Your task to perform on an android device: Open privacy settings Image 0: 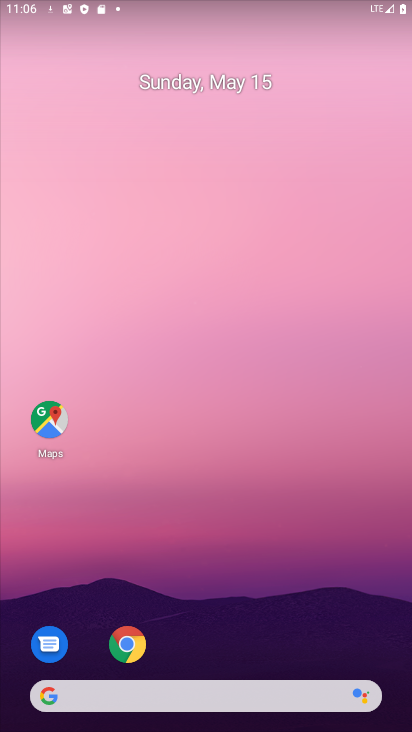
Step 0: drag from (266, 693) to (351, 248)
Your task to perform on an android device: Open privacy settings Image 1: 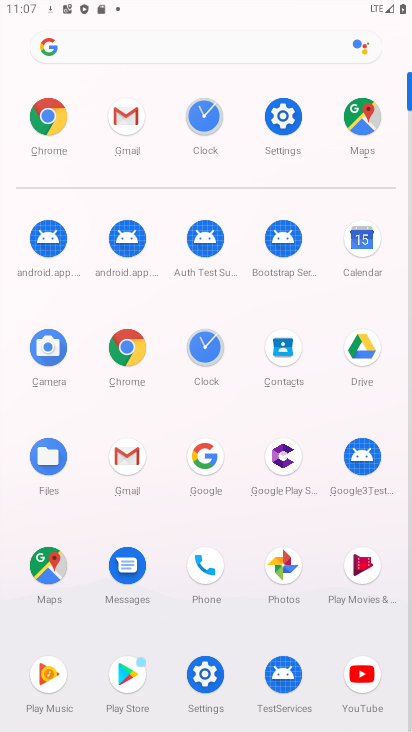
Step 1: click (200, 676)
Your task to perform on an android device: Open privacy settings Image 2: 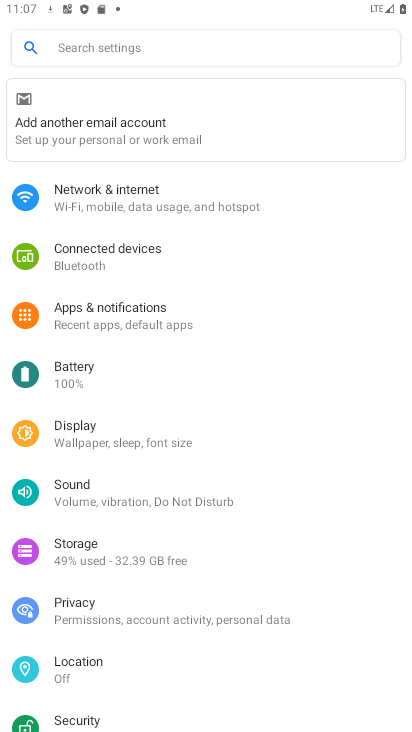
Step 2: click (107, 610)
Your task to perform on an android device: Open privacy settings Image 3: 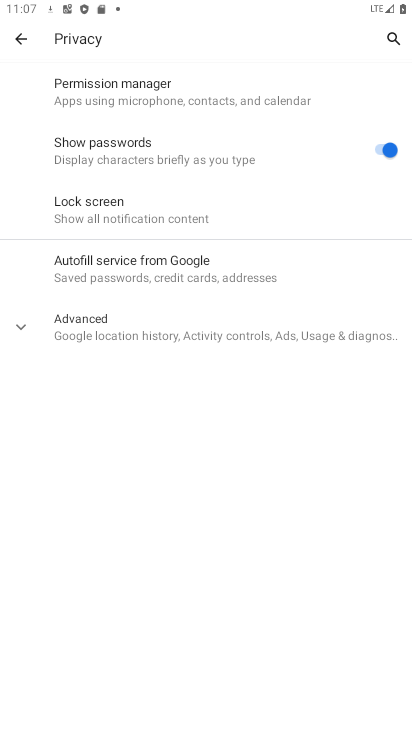
Step 3: task complete